Your task to perform on an android device: Search for "asus zenbook" on walmart.com, select the first entry, and add it to the cart. Image 0: 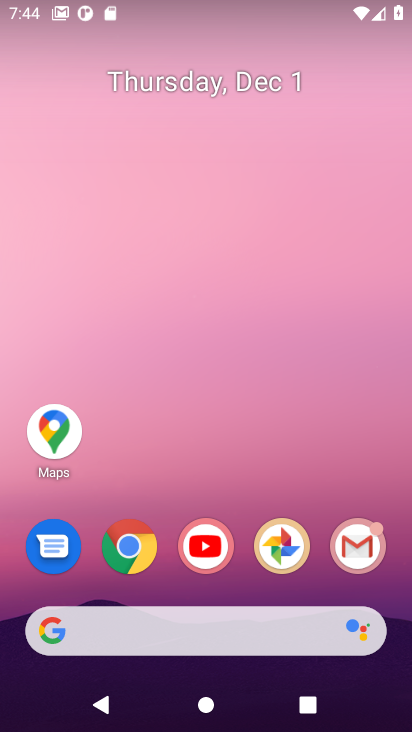
Step 0: click (125, 545)
Your task to perform on an android device: Search for "asus zenbook" on walmart.com, select the first entry, and add it to the cart. Image 1: 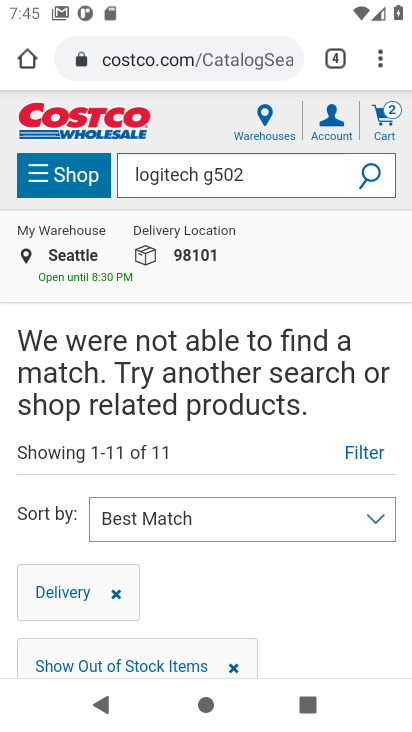
Step 1: click (132, 66)
Your task to perform on an android device: Search for "asus zenbook" on walmart.com, select the first entry, and add it to the cart. Image 2: 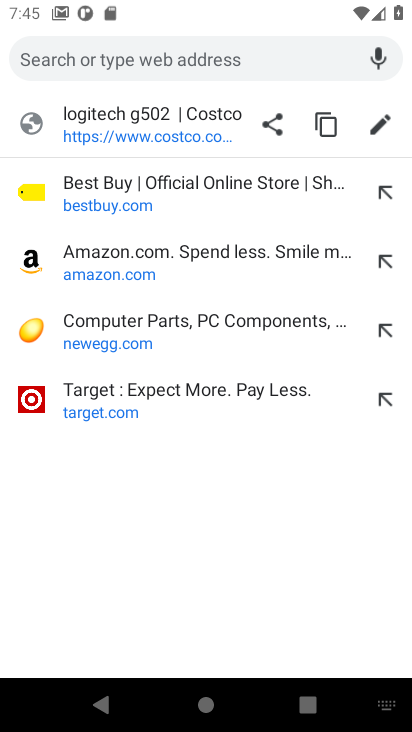
Step 2: type "walmart.com"
Your task to perform on an android device: Search for "asus zenbook" on walmart.com, select the first entry, and add it to the cart. Image 3: 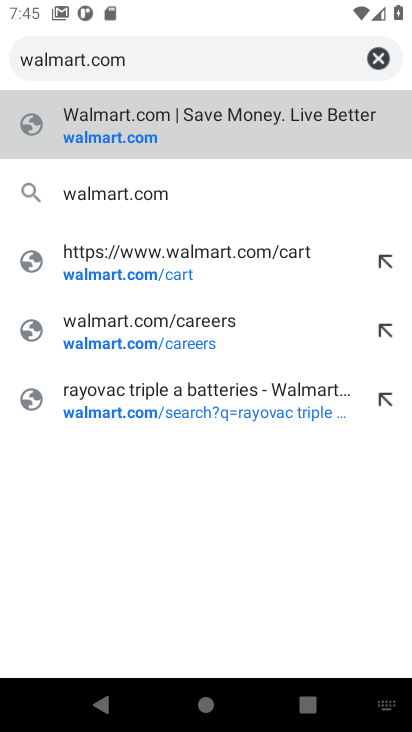
Step 3: click (115, 131)
Your task to perform on an android device: Search for "asus zenbook" on walmart.com, select the first entry, and add it to the cart. Image 4: 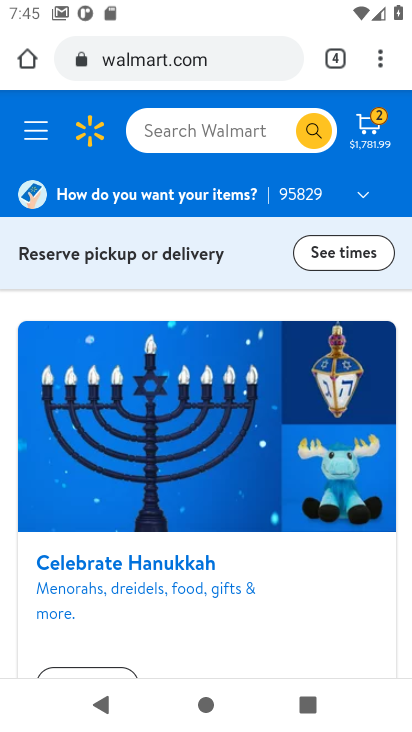
Step 4: click (160, 130)
Your task to perform on an android device: Search for "asus zenbook" on walmart.com, select the first entry, and add it to the cart. Image 5: 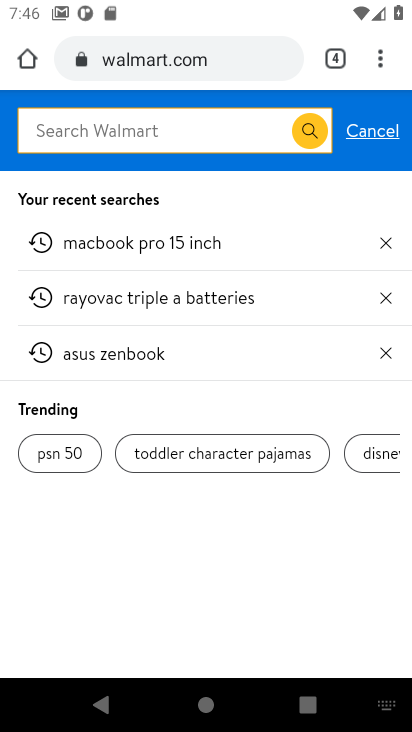
Step 5: type "asus zenbook"
Your task to perform on an android device: Search for "asus zenbook" on walmart.com, select the first entry, and add it to the cart. Image 6: 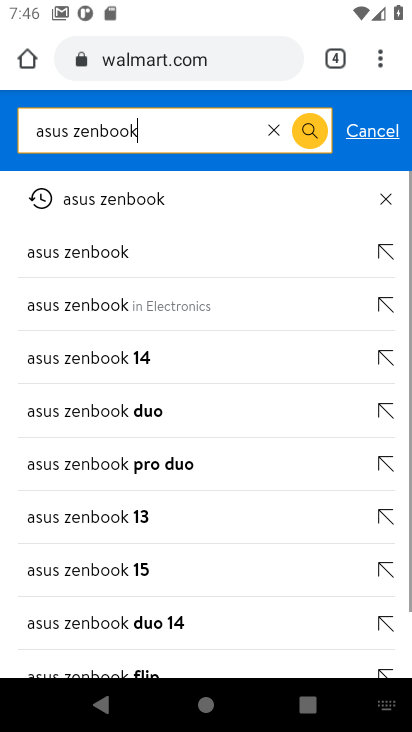
Step 6: click (127, 205)
Your task to perform on an android device: Search for "asus zenbook" on walmart.com, select the first entry, and add it to the cart. Image 7: 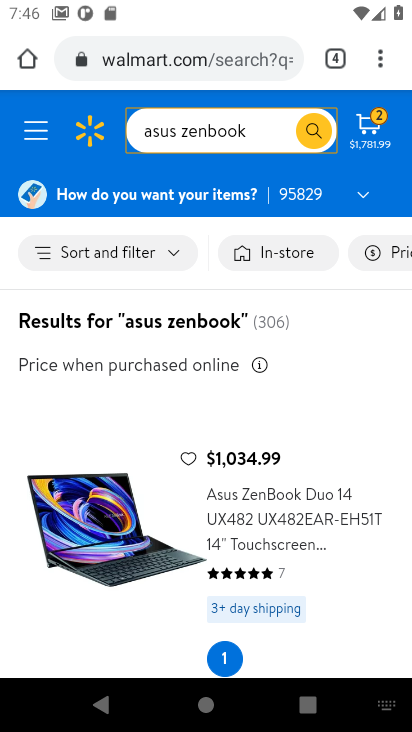
Step 7: drag from (155, 472) to (171, 224)
Your task to perform on an android device: Search for "asus zenbook" on walmart.com, select the first entry, and add it to the cart. Image 8: 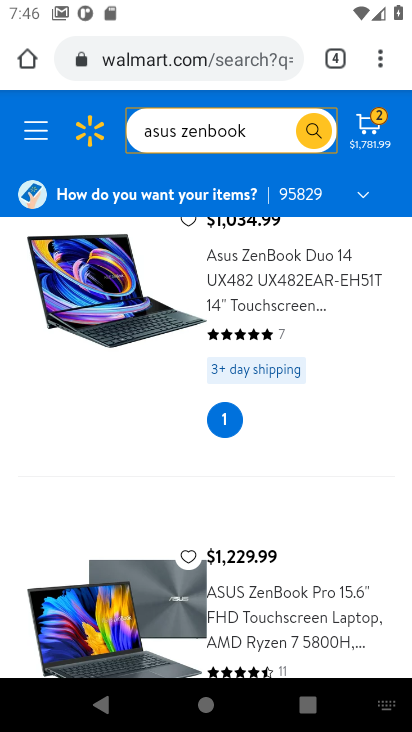
Step 8: click (261, 297)
Your task to perform on an android device: Search for "asus zenbook" on walmart.com, select the first entry, and add it to the cart. Image 9: 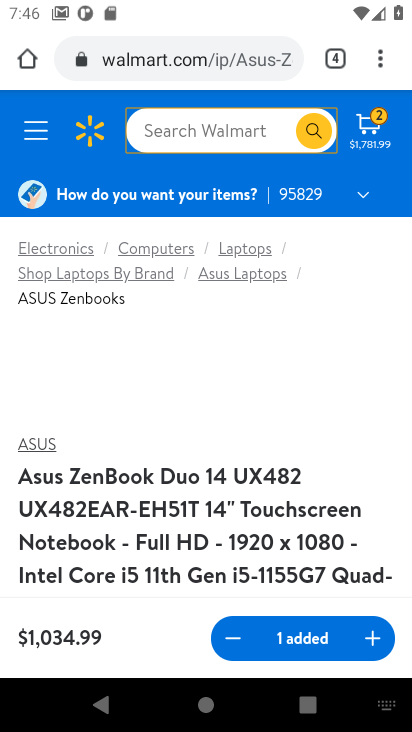
Step 9: click (370, 634)
Your task to perform on an android device: Search for "asus zenbook" on walmart.com, select the first entry, and add it to the cart. Image 10: 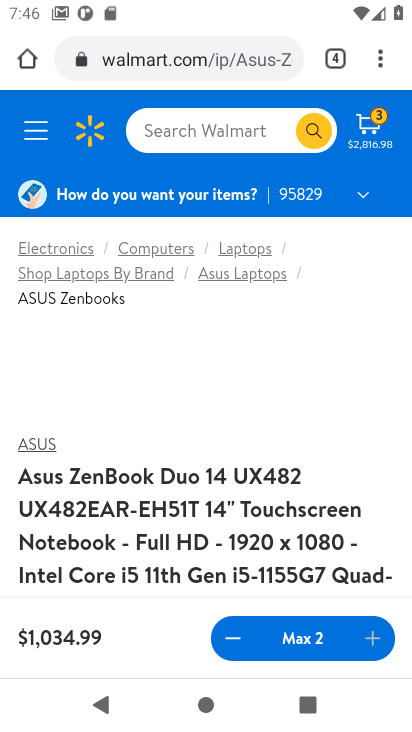
Step 10: task complete